Your task to perform on an android device: Open Google Maps Image 0: 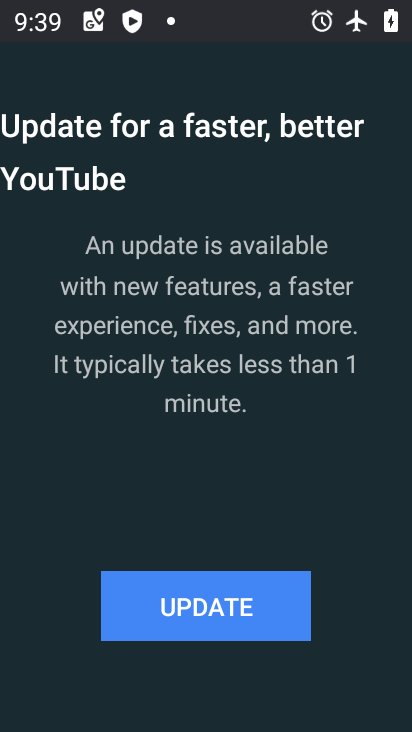
Step 0: press home button
Your task to perform on an android device: Open Google Maps Image 1: 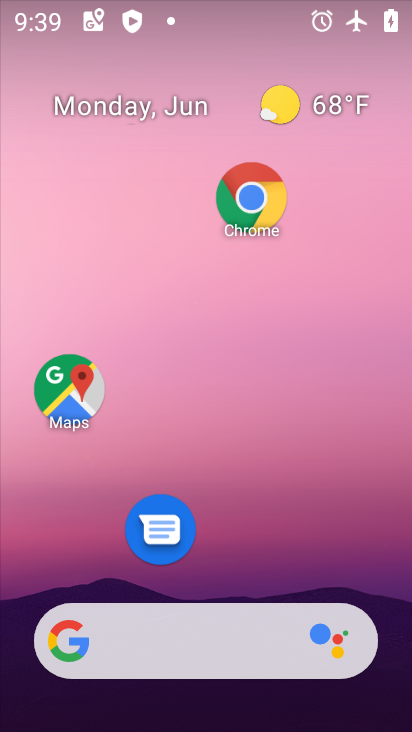
Step 1: click (63, 382)
Your task to perform on an android device: Open Google Maps Image 2: 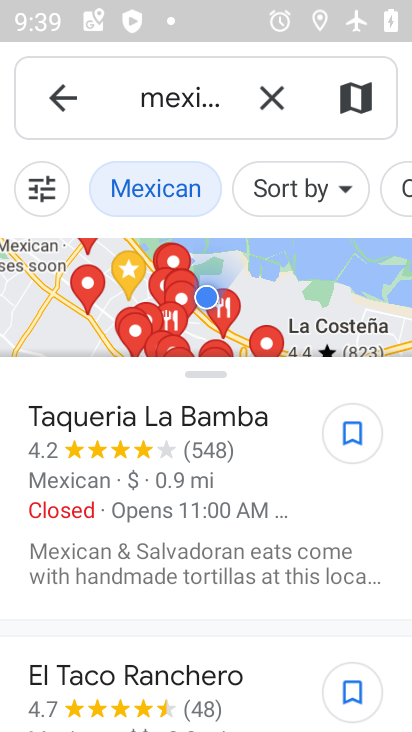
Step 2: task complete